Your task to perform on an android device: turn on the 12-hour format for clock Image 0: 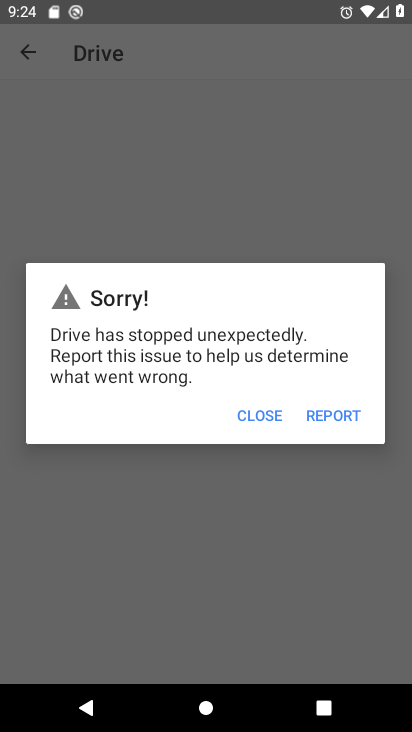
Step 0: press home button
Your task to perform on an android device: turn on the 12-hour format for clock Image 1: 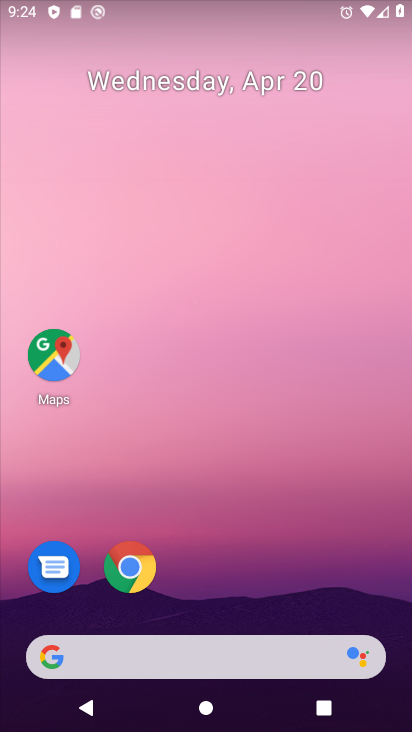
Step 1: drag from (326, 564) to (359, 158)
Your task to perform on an android device: turn on the 12-hour format for clock Image 2: 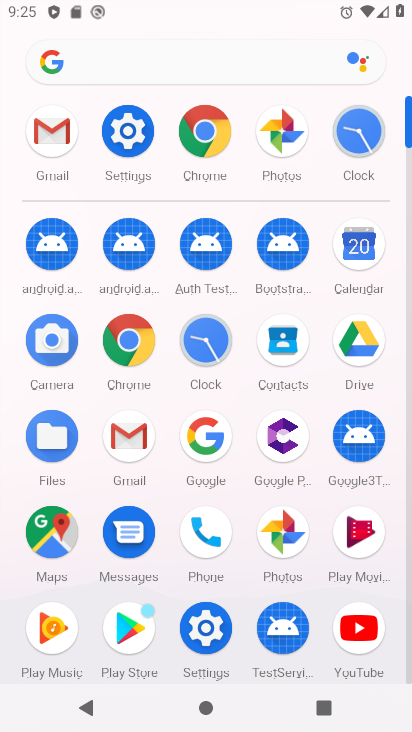
Step 2: click (199, 350)
Your task to perform on an android device: turn on the 12-hour format for clock Image 3: 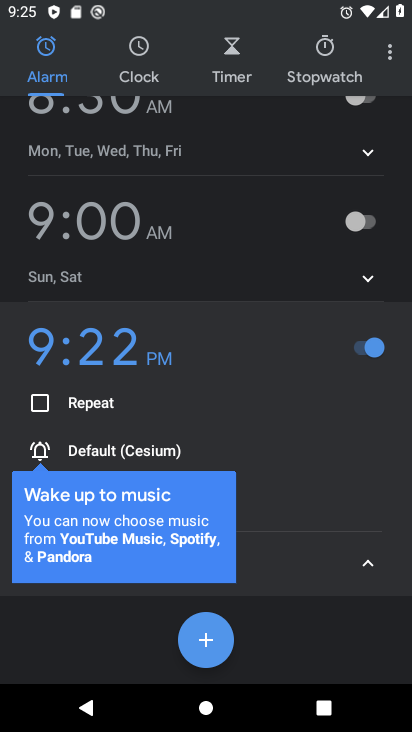
Step 3: click (389, 48)
Your task to perform on an android device: turn on the 12-hour format for clock Image 4: 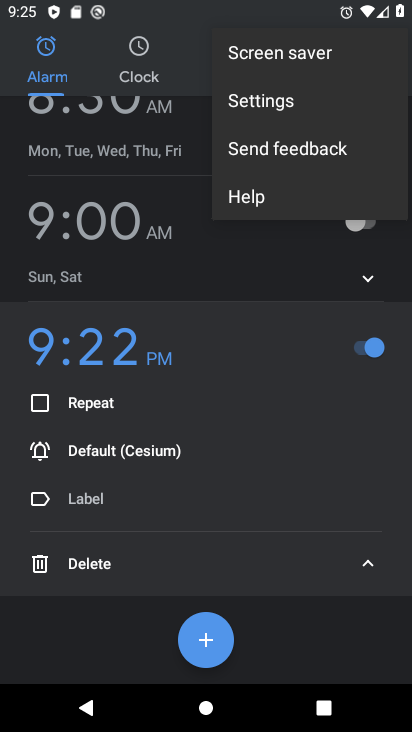
Step 4: click (311, 98)
Your task to perform on an android device: turn on the 12-hour format for clock Image 5: 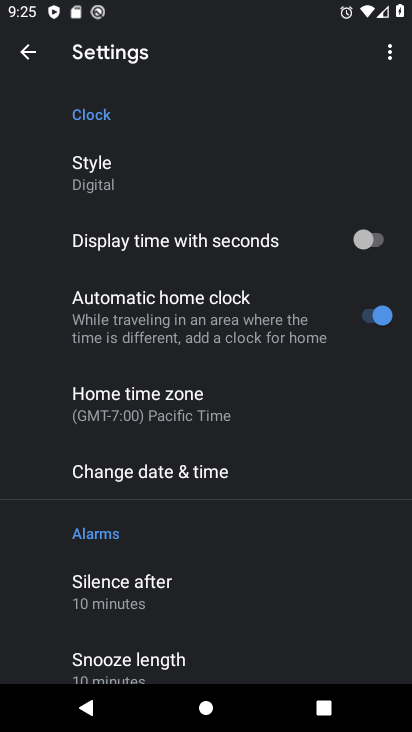
Step 5: drag from (338, 512) to (335, 370)
Your task to perform on an android device: turn on the 12-hour format for clock Image 6: 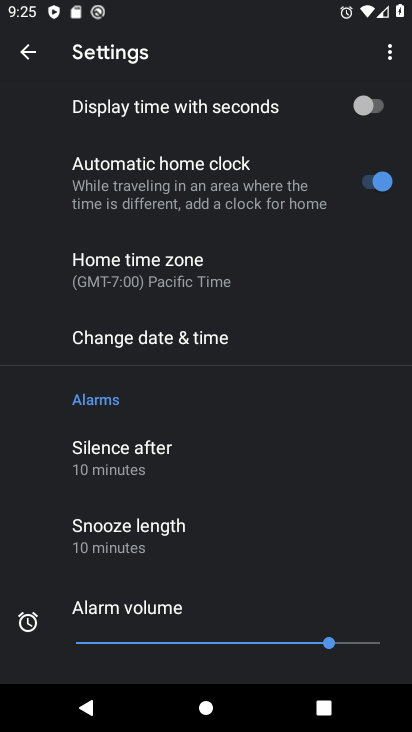
Step 6: drag from (298, 471) to (304, 301)
Your task to perform on an android device: turn on the 12-hour format for clock Image 7: 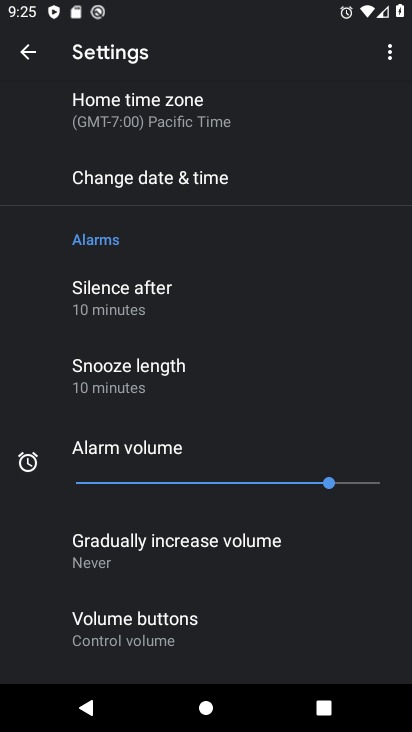
Step 7: drag from (295, 405) to (308, 247)
Your task to perform on an android device: turn on the 12-hour format for clock Image 8: 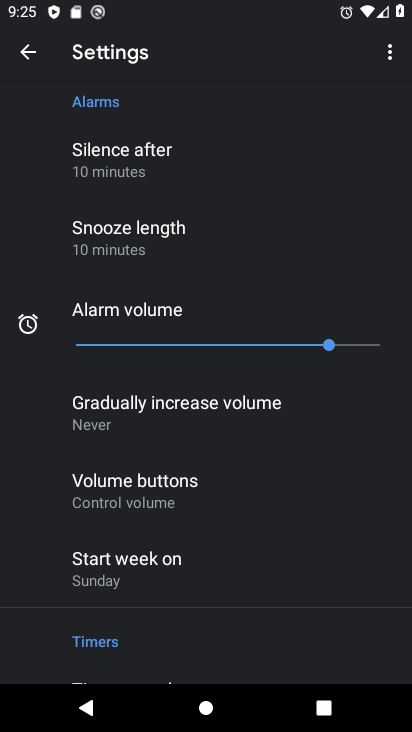
Step 8: drag from (318, 534) to (344, 314)
Your task to perform on an android device: turn on the 12-hour format for clock Image 9: 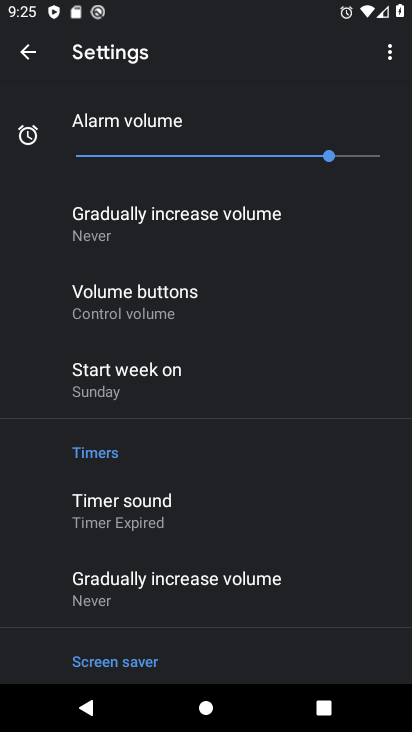
Step 9: drag from (350, 518) to (332, 398)
Your task to perform on an android device: turn on the 12-hour format for clock Image 10: 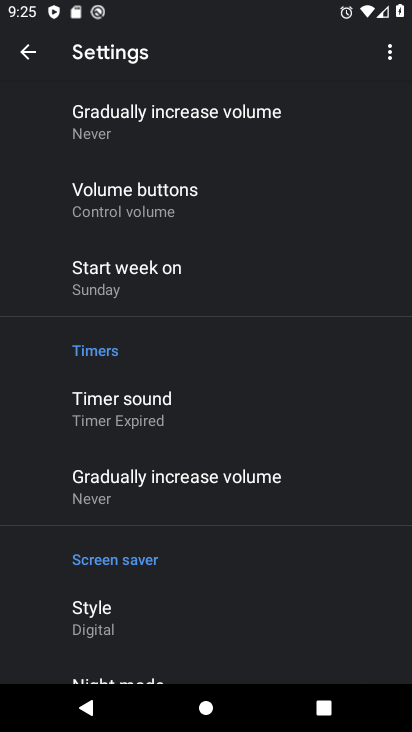
Step 10: drag from (344, 270) to (322, 486)
Your task to perform on an android device: turn on the 12-hour format for clock Image 11: 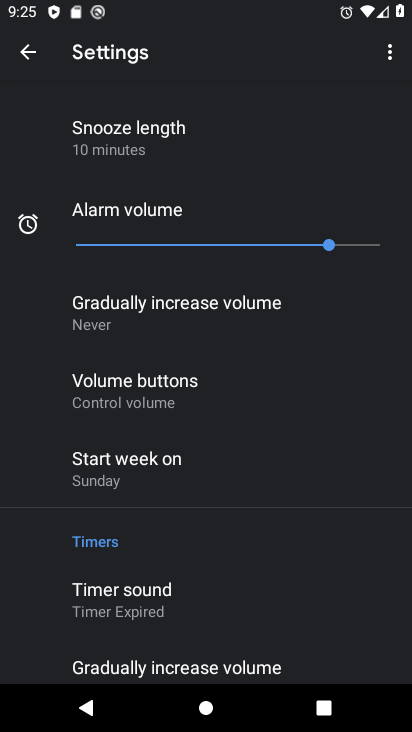
Step 11: drag from (359, 326) to (352, 497)
Your task to perform on an android device: turn on the 12-hour format for clock Image 12: 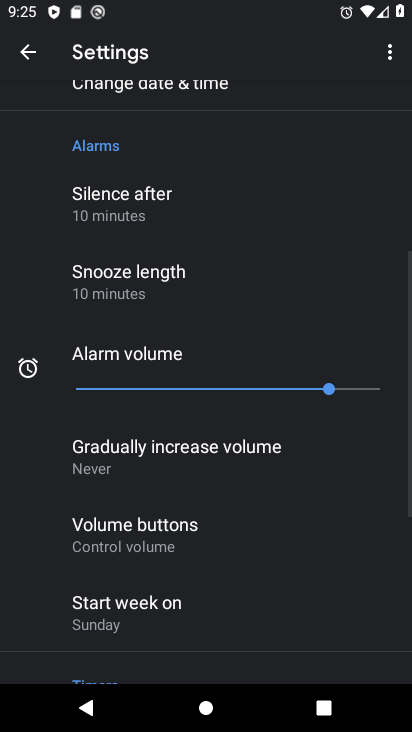
Step 12: drag from (333, 269) to (333, 505)
Your task to perform on an android device: turn on the 12-hour format for clock Image 13: 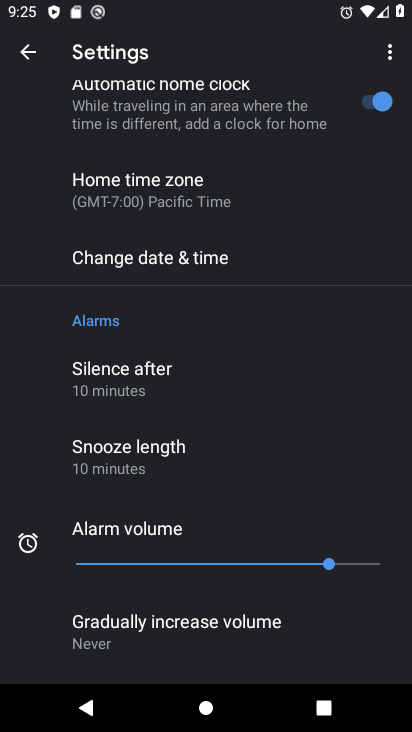
Step 13: click (233, 264)
Your task to perform on an android device: turn on the 12-hour format for clock Image 14: 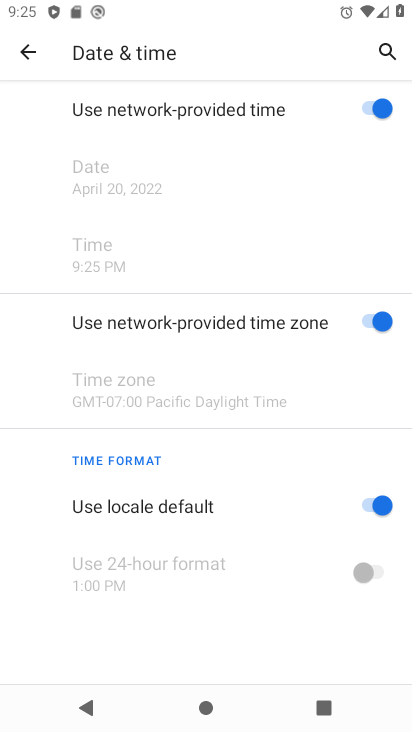
Step 14: task complete